Your task to perform on an android device: search for starred emails in the gmail app Image 0: 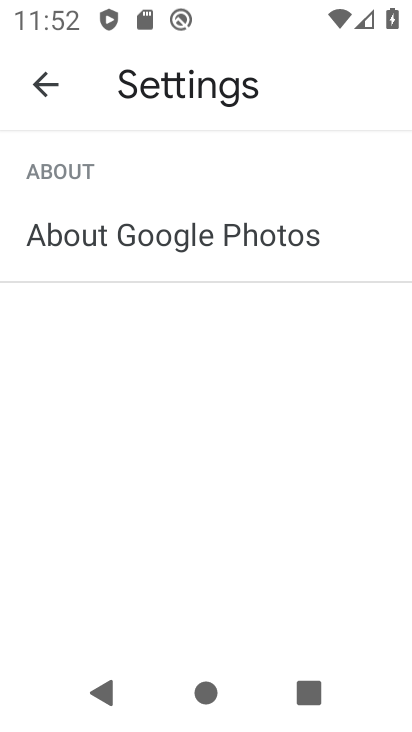
Step 0: press home button
Your task to perform on an android device: search for starred emails in the gmail app Image 1: 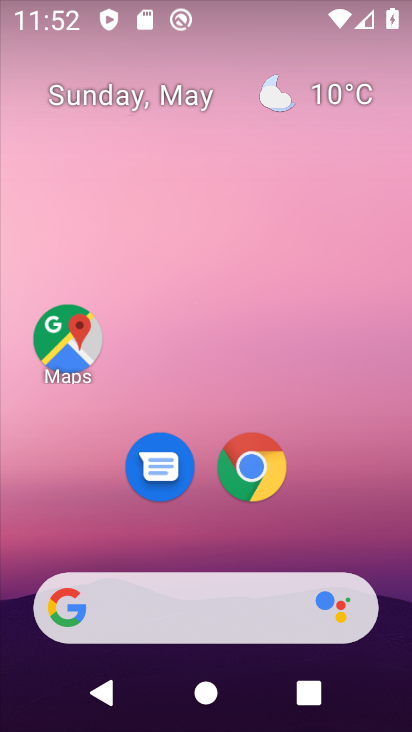
Step 1: click (369, 158)
Your task to perform on an android device: search for starred emails in the gmail app Image 2: 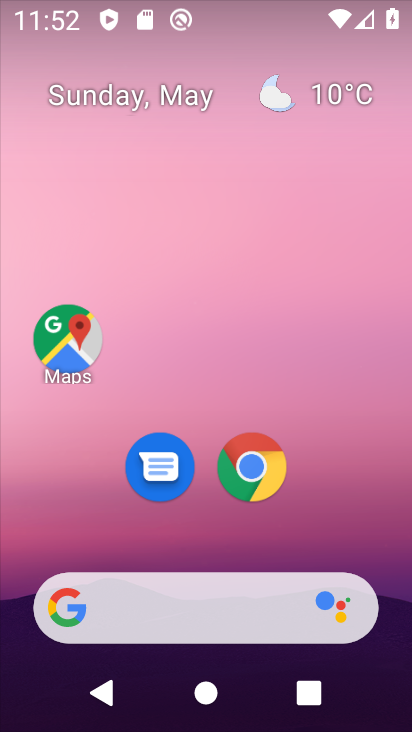
Step 2: drag from (391, 557) to (372, 116)
Your task to perform on an android device: search for starred emails in the gmail app Image 3: 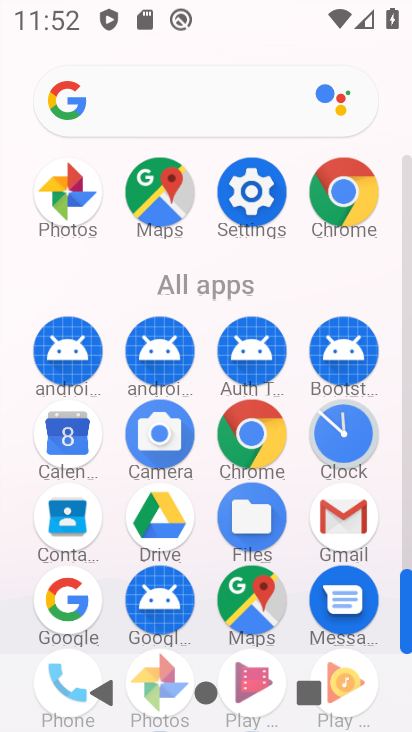
Step 3: click (324, 518)
Your task to perform on an android device: search for starred emails in the gmail app Image 4: 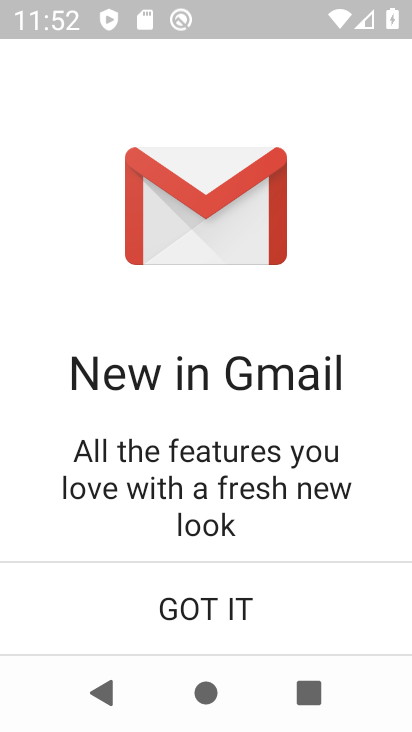
Step 4: click (230, 604)
Your task to perform on an android device: search for starred emails in the gmail app Image 5: 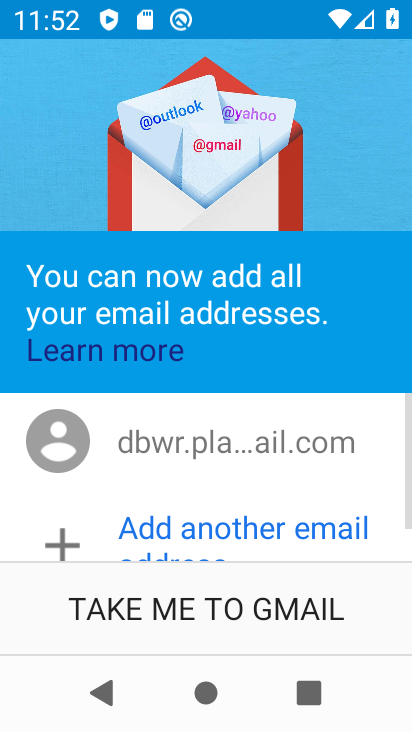
Step 5: click (213, 602)
Your task to perform on an android device: search for starred emails in the gmail app Image 6: 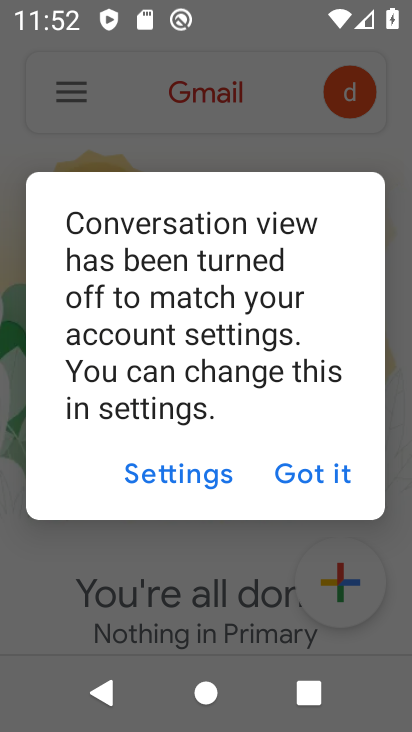
Step 6: click (331, 472)
Your task to perform on an android device: search for starred emails in the gmail app Image 7: 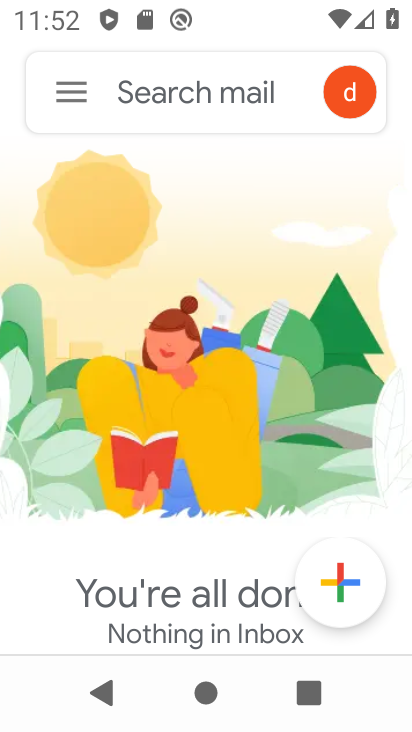
Step 7: click (79, 97)
Your task to perform on an android device: search for starred emails in the gmail app Image 8: 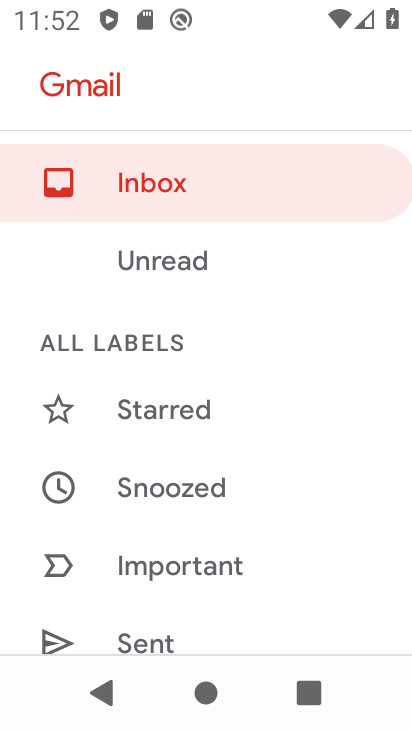
Step 8: click (224, 412)
Your task to perform on an android device: search for starred emails in the gmail app Image 9: 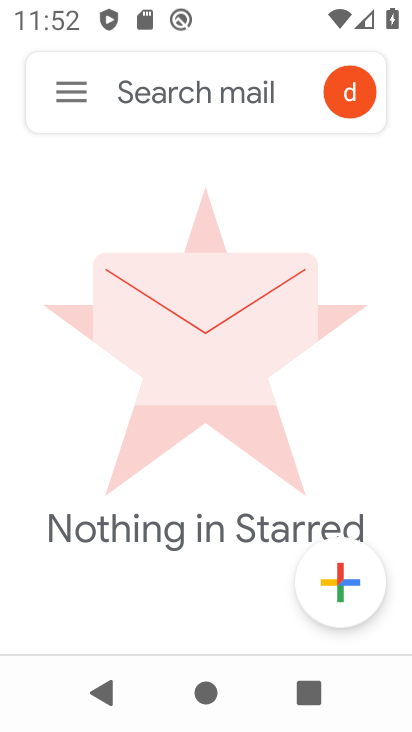
Step 9: task complete